Your task to perform on an android device: check google app version Image 0: 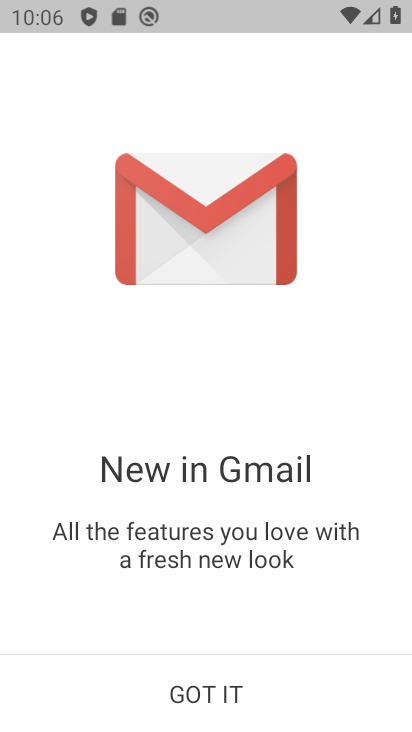
Step 0: click (239, 571)
Your task to perform on an android device: check google app version Image 1: 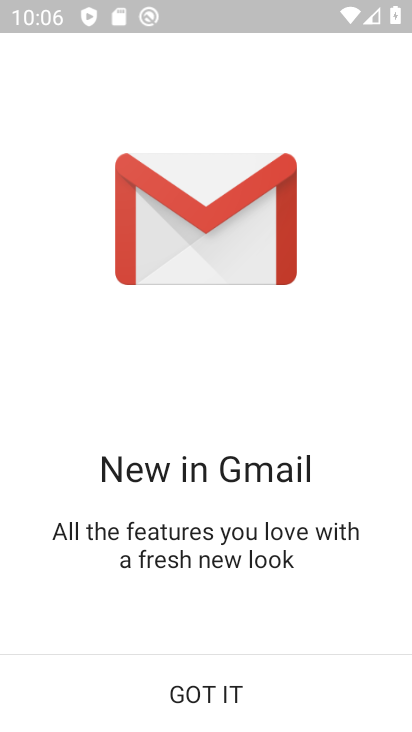
Step 1: press home button
Your task to perform on an android device: check google app version Image 2: 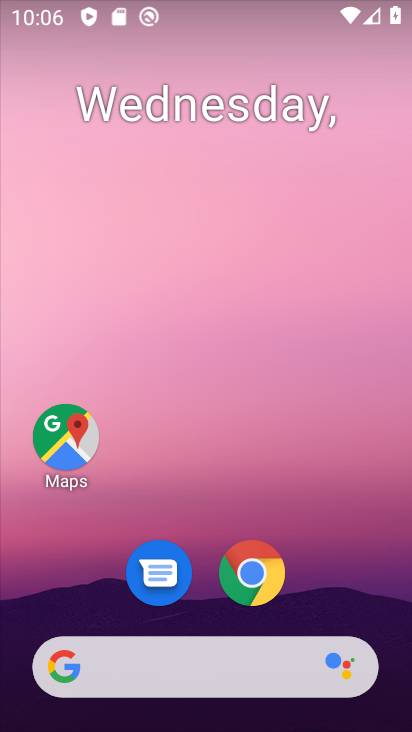
Step 2: drag from (168, 627) to (217, 249)
Your task to perform on an android device: check google app version Image 3: 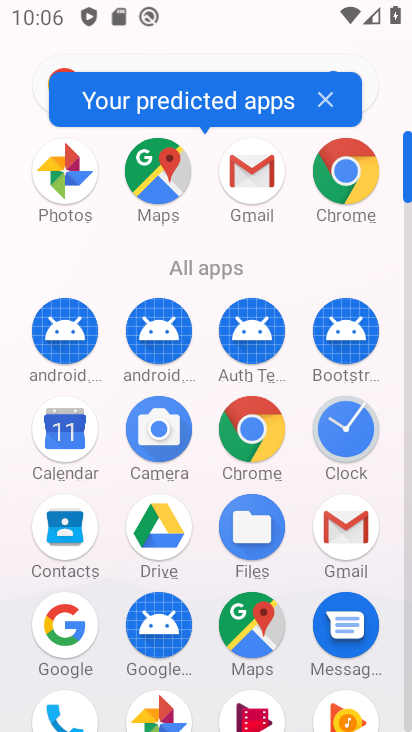
Step 3: drag from (189, 509) to (230, 249)
Your task to perform on an android device: check google app version Image 4: 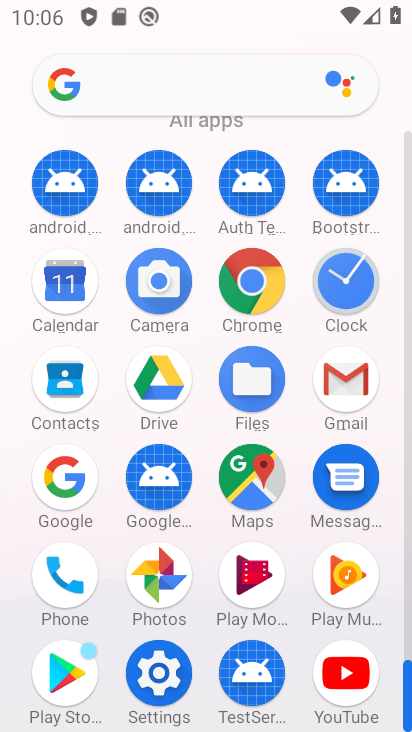
Step 4: click (65, 483)
Your task to perform on an android device: check google app version Image 5: 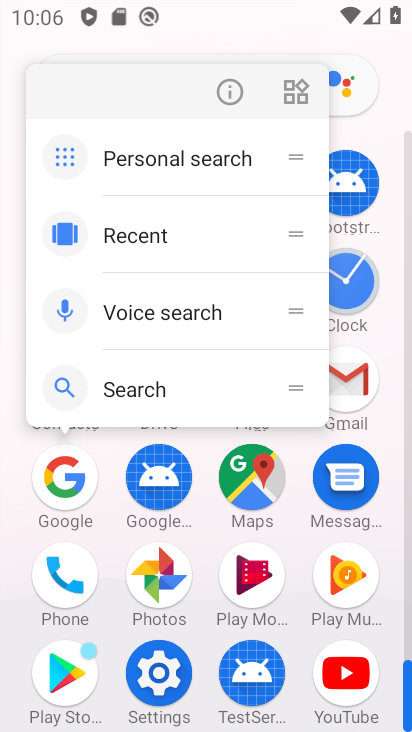
Step 5: click (232, 89)
Your task to perform on an android device: check google app version Image 6: 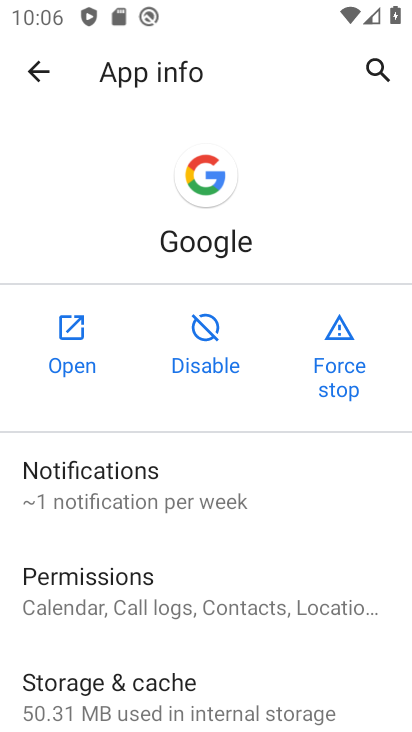
Step 6: drag from (165, 704) to (221, 323)
Your task to perform on an android device: check google app version Image 7: 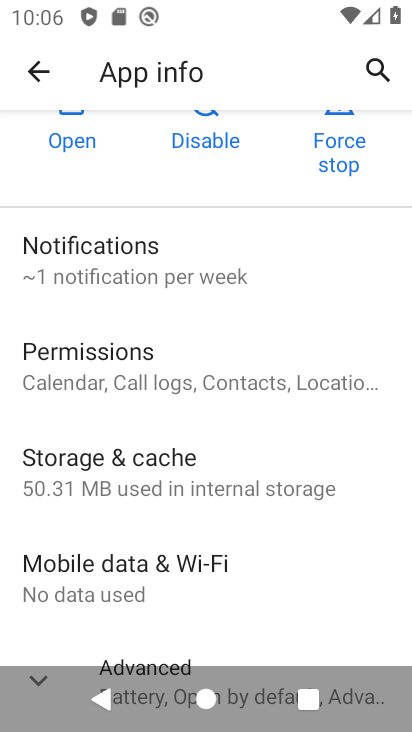
Step 7: drag from (201, 614) to (285, 225)
Your task to perform on an android device: check google app version Image 8: 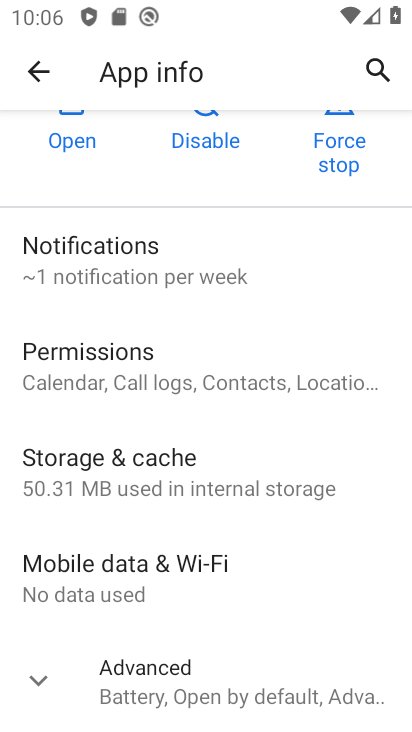
Step 8: drag from (212, 715) to (276, 383)
Your task to perform on an android device: check google app version Image 9: 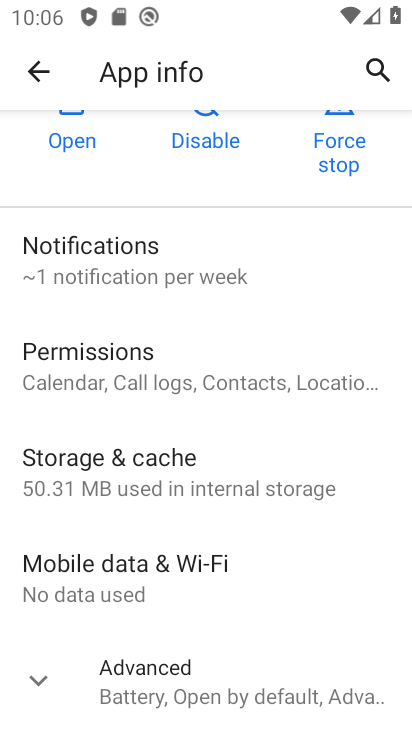
Step 9: click (182, 694)
Your task to perform on an android device: check google app version Image 10: 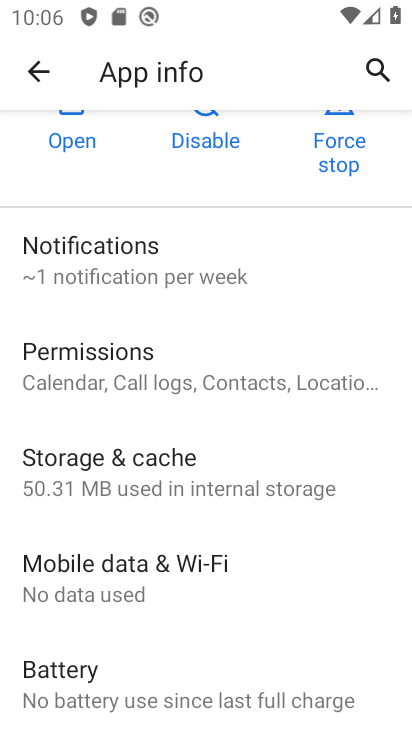
Step 10: drag from (240, 718) to (296, 307)
Your task to perform on an android device: check google app version Image 11: 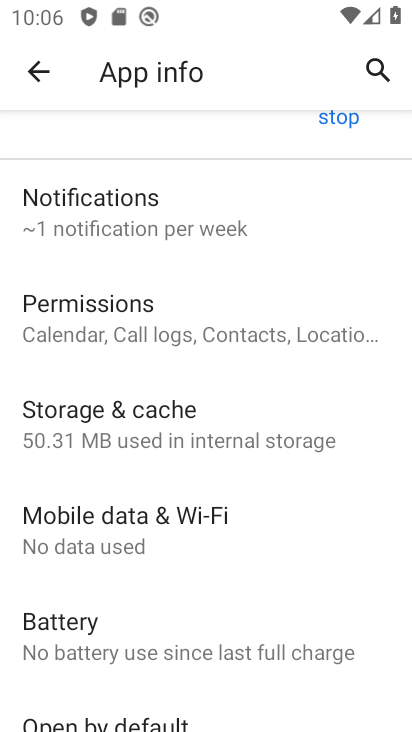
Step 11: drag from (202, 669) to (286, 247)
Your task to perform on an android device: check google app version Image 12: 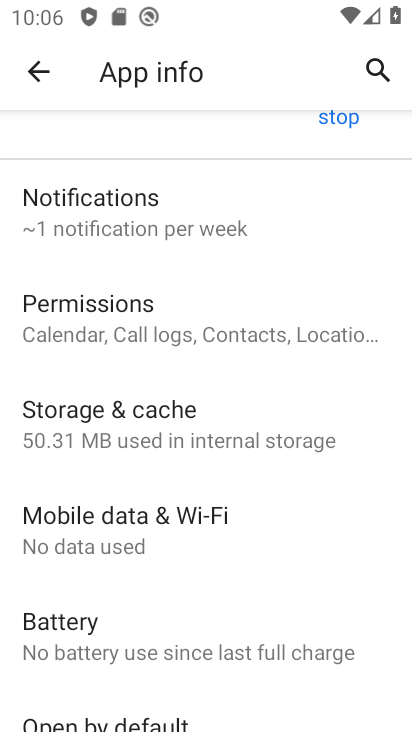
Step 12: drag from (269, 651) to (323, 267)
Your task to perform on an android device: check google app version Image 13: 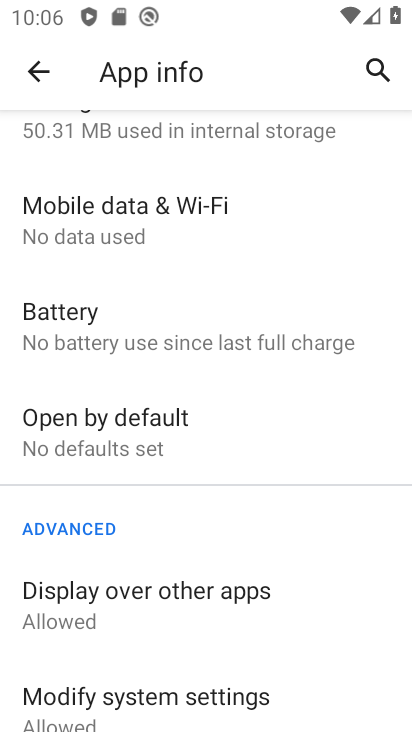
Step 13: click (293, 310)
Your task to perform on an android device: check google app version Image 14: 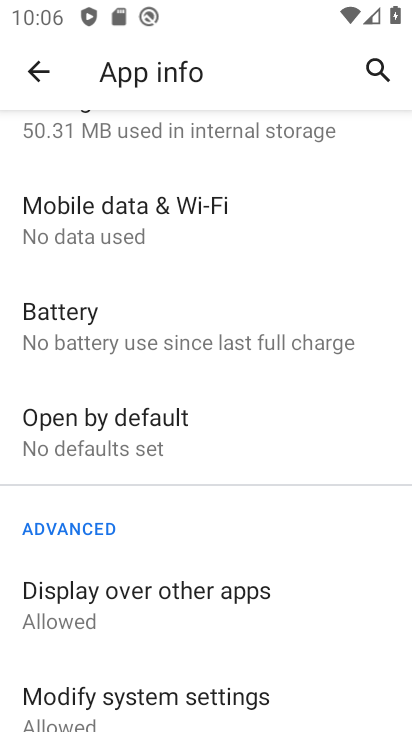
Step 14: task complete